Your task to perform on an android device: Open privacy settings Image 0: 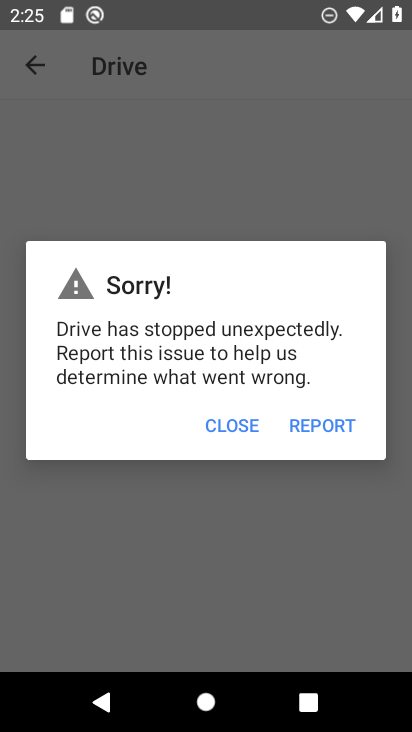
Step 0: press home button
Your task to perform on an android device: Open privacy settings Image 1: 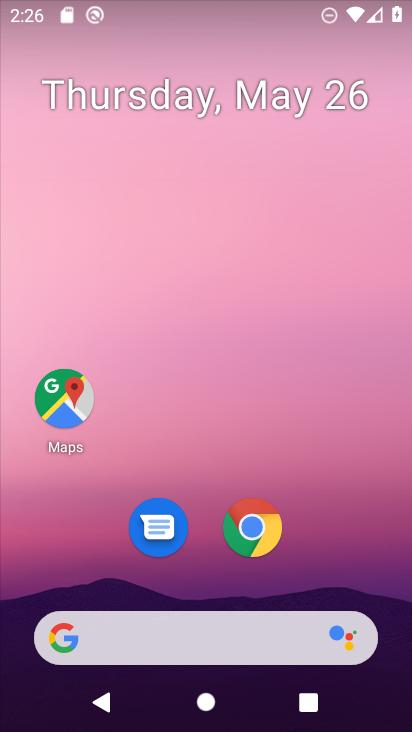
Step 1: drag from (175, 596) to (225, 59)
Your task to perform on an android device: Open privacy settings Image 2: 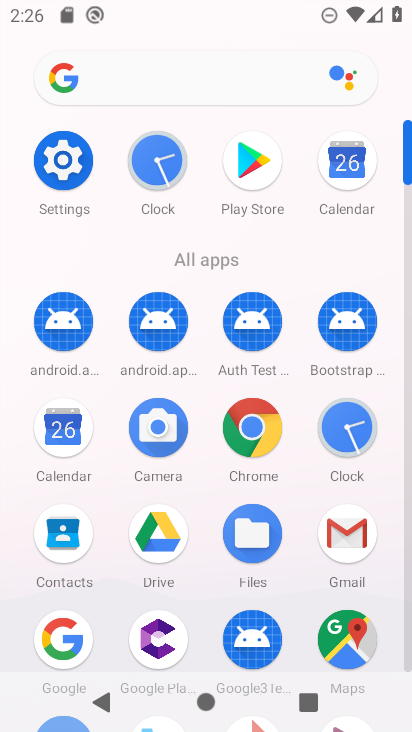
Step 2: click (48, 157)
Your task to perform on an android device: Open privacy settings Image 3: 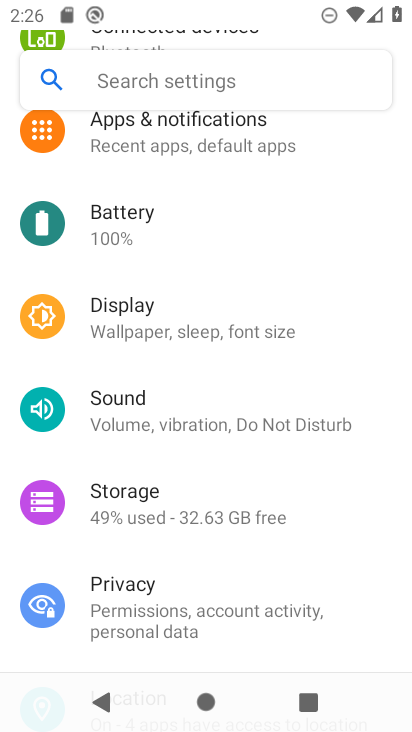
Step 3: click (152, 600)
Your task to perform on an android device: Open privacy settings Image 4: 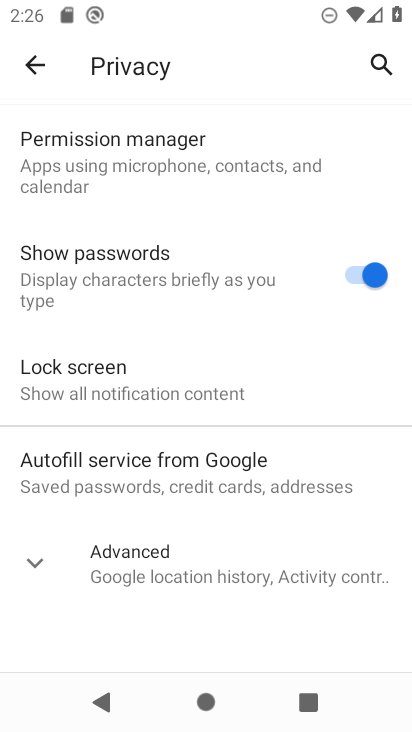
Step 4: task complete